Your task to perform on an android device: Is it going to rain tomorrow? Image 0: 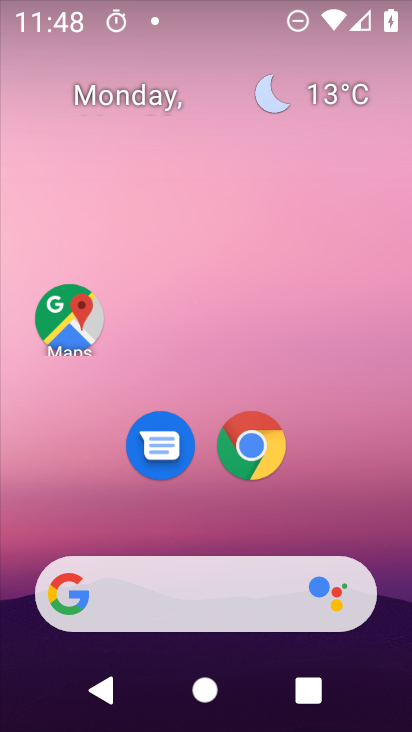
Step 0: drag from (183, 518) to (250, 30)
Your task to perform on an android device: Is it going to rain tomorrow? Image 1: 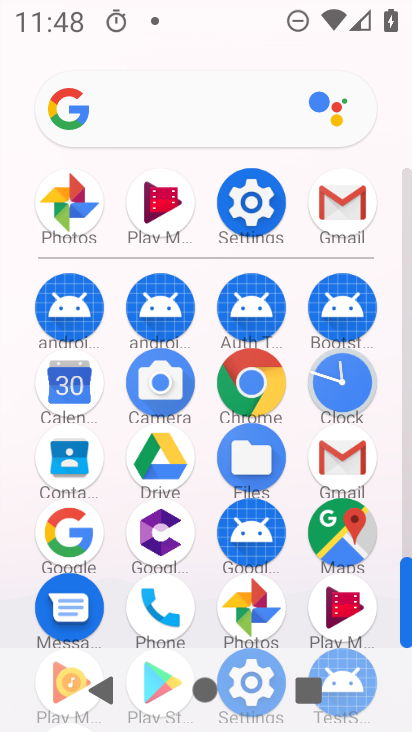
Step 1: click (59, 372)
Your task to perform on an android device: Is it going to rain tomorrow? Image 2: 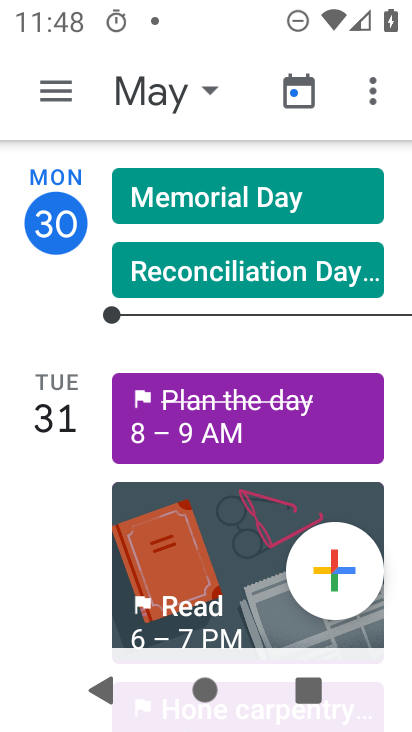
Step 2: press back button
Your task to perform on an android device: Is it going to rain tomorrow? Image 3: 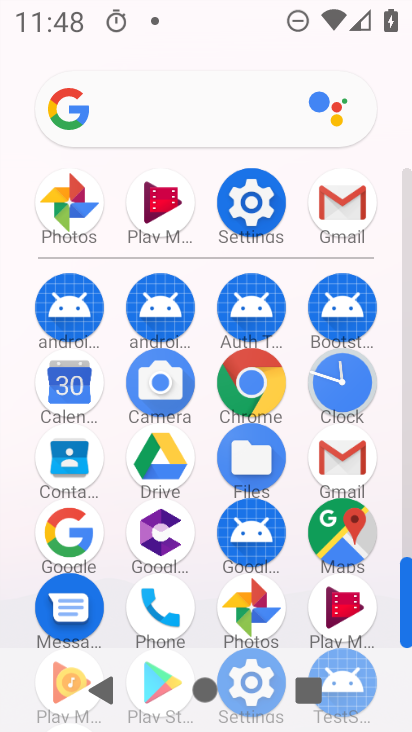
Step 3: press back button
Your task to perform on an android device: Is it going to rain tomorrow? Image 4: 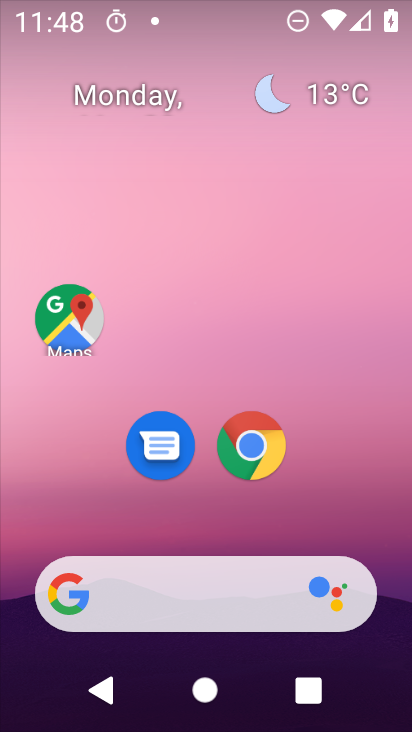
Step 4: click (266, 87)
Your task to perform on an android device: Is it going to rain tomorrow? Image 5: 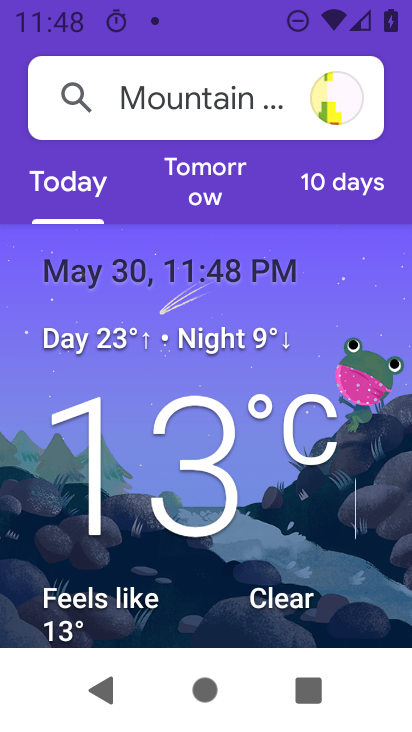
Step 5: click (222, 160)
Your task to perform on an android device: Is it going to rain tomorrow? Image 6: 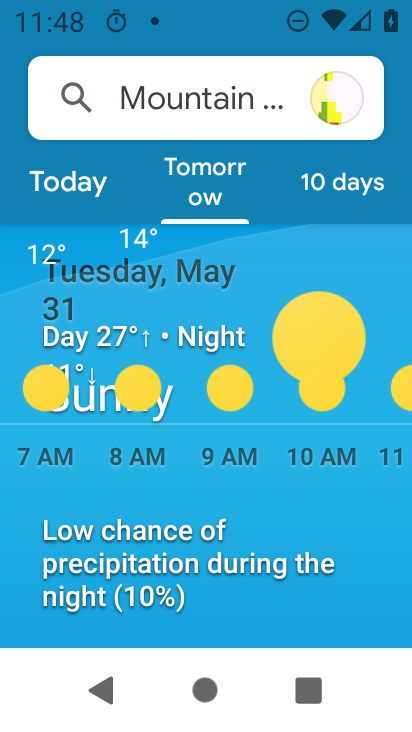
Step 6: task complete